Your task to perform on an android device: Do I have any events tomorrow? Image 0: 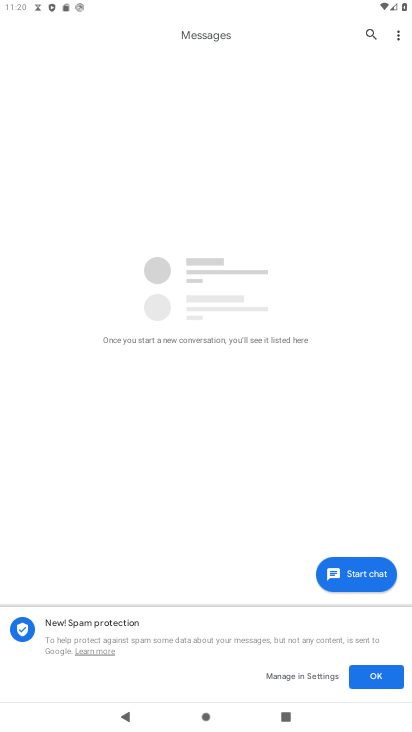
Step 0: press home button
Your task to perform on an android device: Do I have any events tomorrow? Image 1: 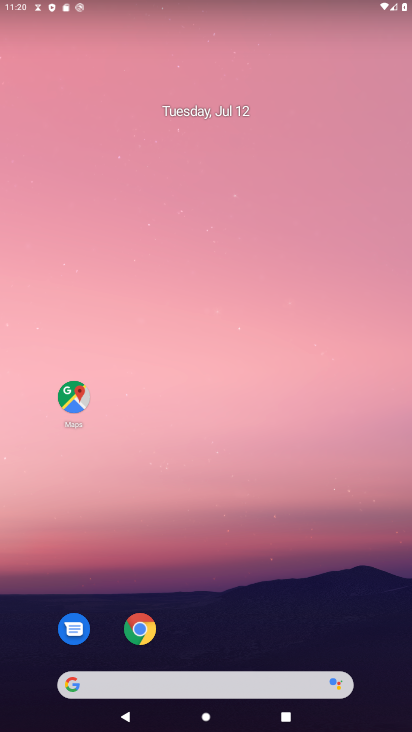
Step 1: drag from (249, 604) to (372, 0)
Your task to perform on an android device: Do I have any events tomorrow? Image 2: 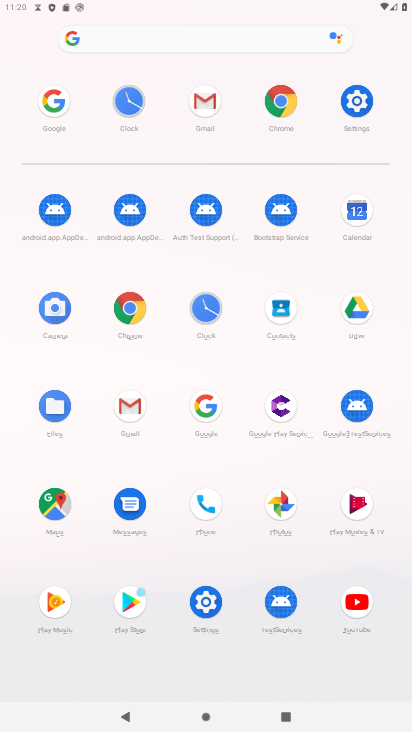
Step 2: click (358, 210)
Your task to perform on an android device: Do I have any events tomorrow? Image 3: 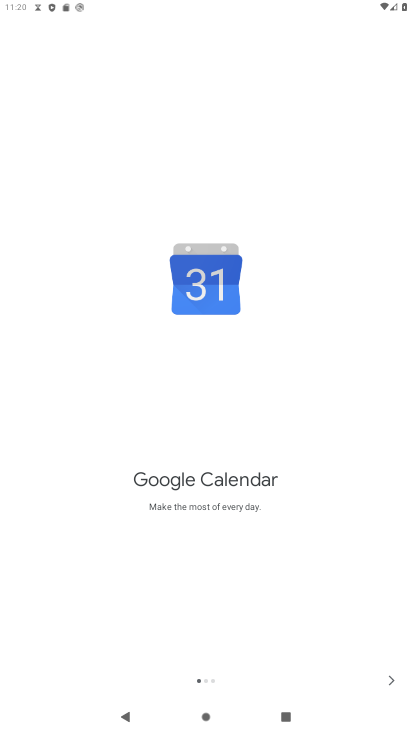
Step 3: click (401, 672)
Your task to perform on an android device: Do I have any events tomorrow? Image 4: 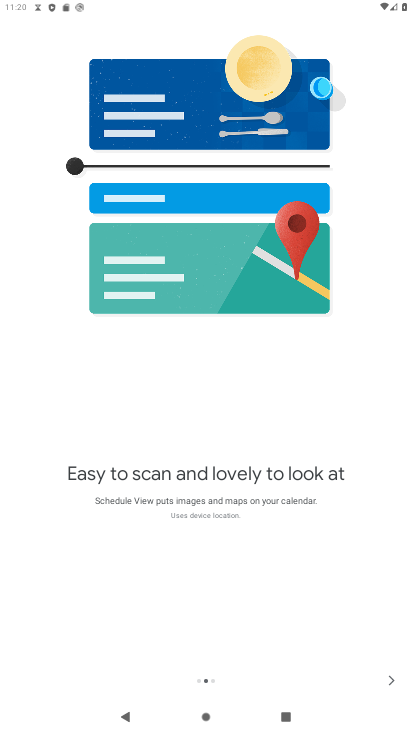
Step 4: click (401, 671)
Your task to perform on an android device: Do I have any events tomorrow? Image 5: 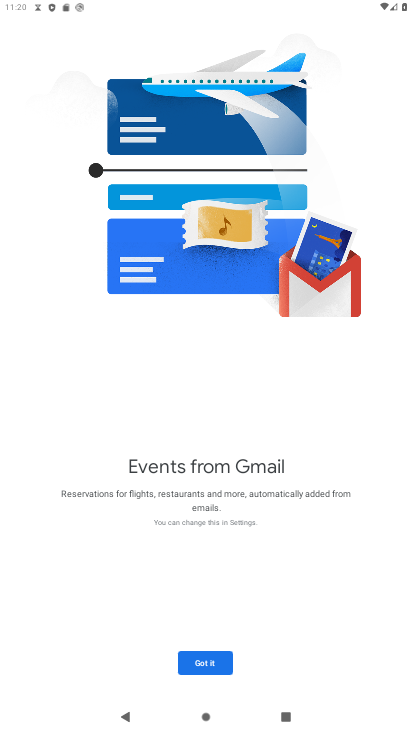
Step 5: click (195, 660)
Your task to perform on an android device: Do I have any events tomorrow? Image 6: 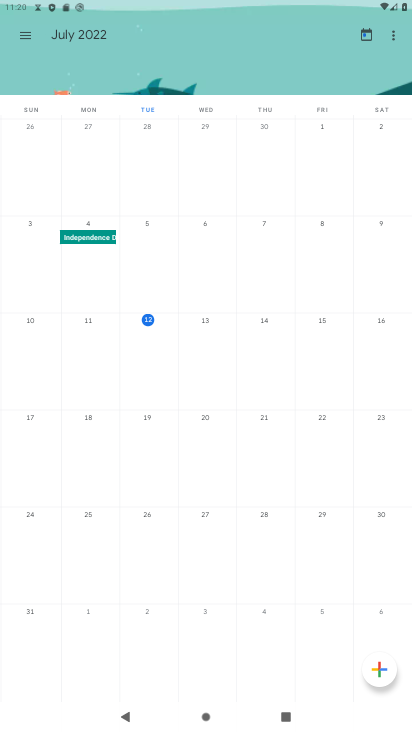
Step 6: task complete